Your task to perform on an android device: Open the calendar and show me this week's events? Image 0: 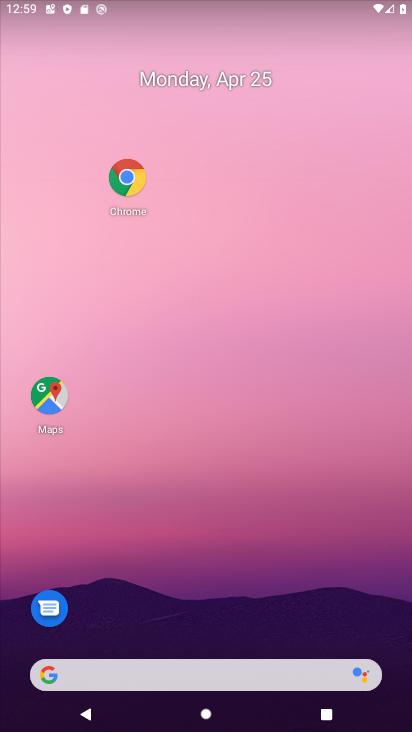
Step 0: drag from (262, 606) to (286, 124)
Your task to perform on an android device: Open the calendar and show me this week's events? Image 1: 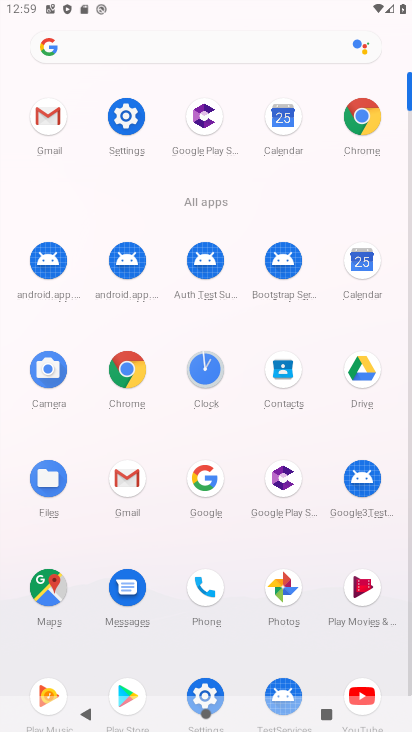
Step 1: click (354, 267)
Your task to perform on an android device: Open the calendar and show me this week's events? Image 2: 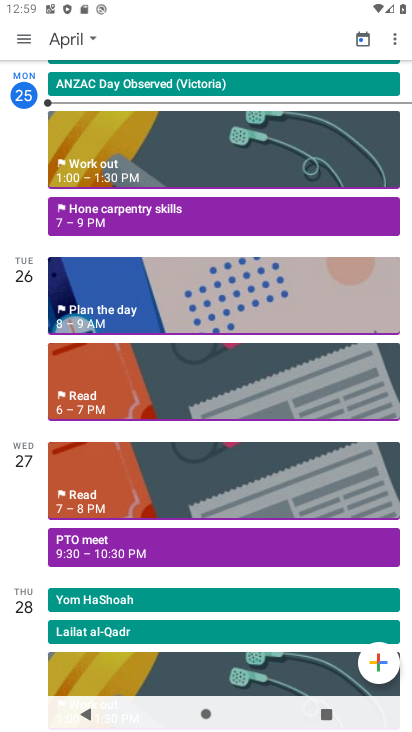
Step 2: click (23, 37)
Your task to perform on an android device: Open the calendar and show me this week's events? Image 3: 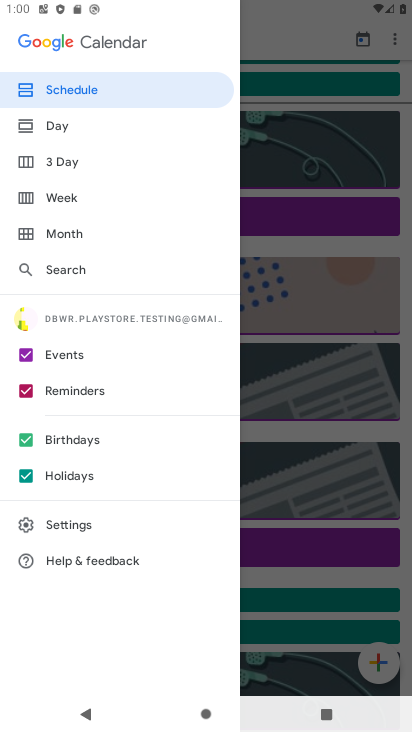
Step 3: click (313, 31)
Your task to perform on an android device: Open the calendar and show me this week's events? Image 4: 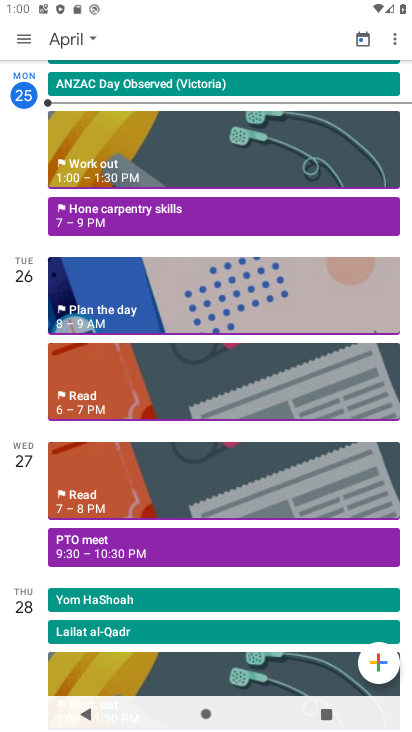
Step 4: click (306, 60)
Your task to perform on an android device: Open the calendar and show me this week's events? Image 5: 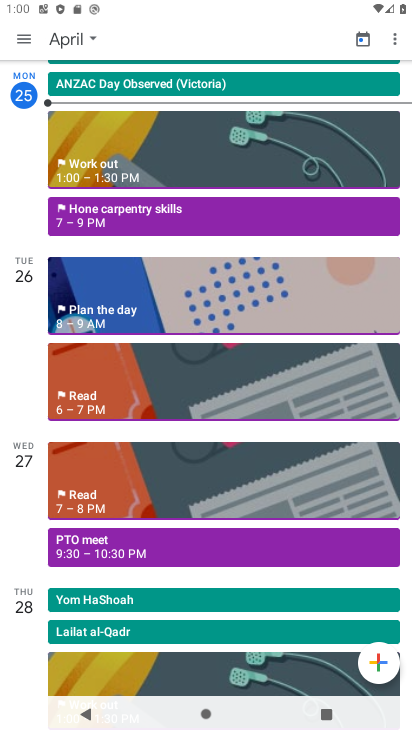
Step 5: task complete